Your task to perform on an android device: Open Chrome and go to the settings page Image 0: 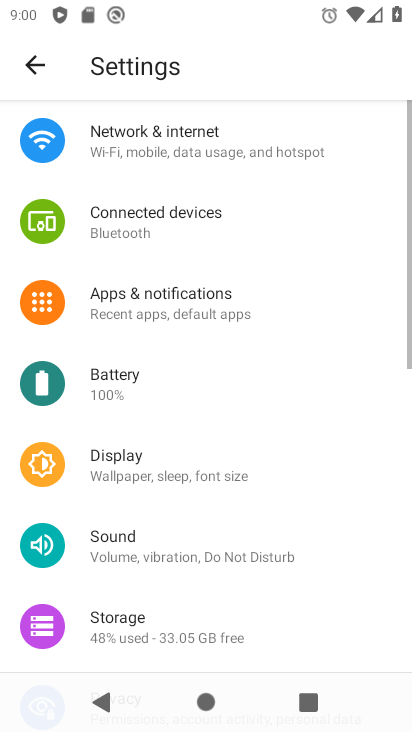
Step 0: press home button
Your task to perform on an android device: Open Chrome and go to the settings page Image 1: 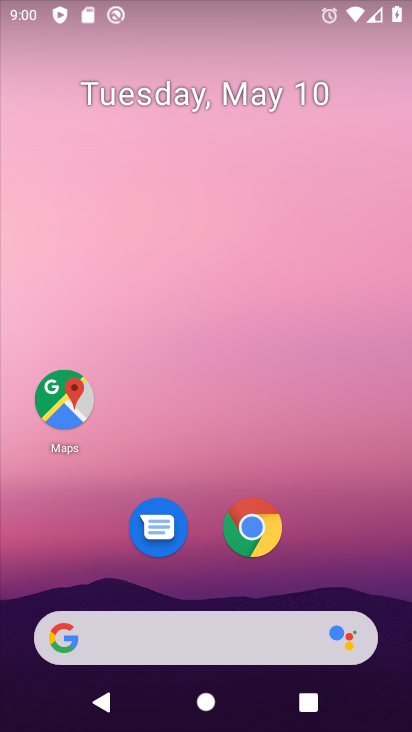
Step 1: click (250, 510)
Your task to perform on an android device: Open Chrome and go to the settings page Image 2: 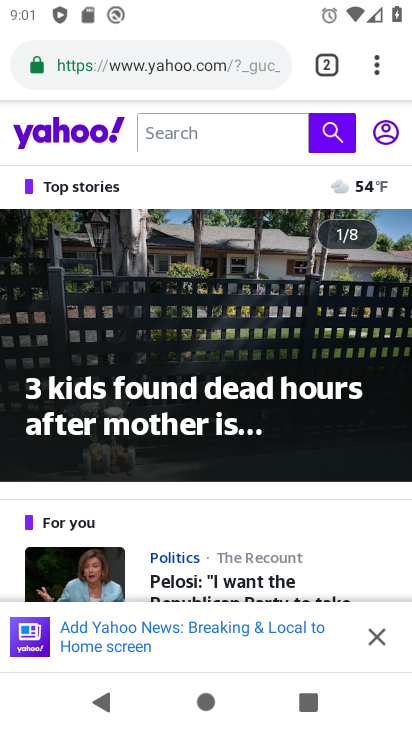
Step 2: click (373, 70)
Your task to perform on an android device: Open Chrome and go to the settings page Image 3: 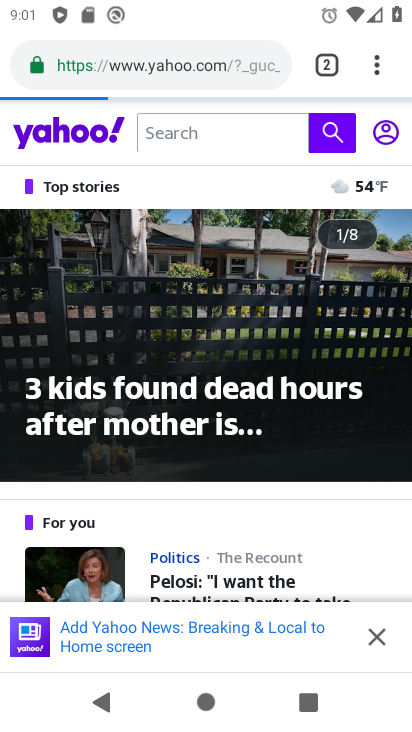
Step 3: task complete